Your task to perform on an android device: Open the phone app and click the voicemail tab. Image 0: 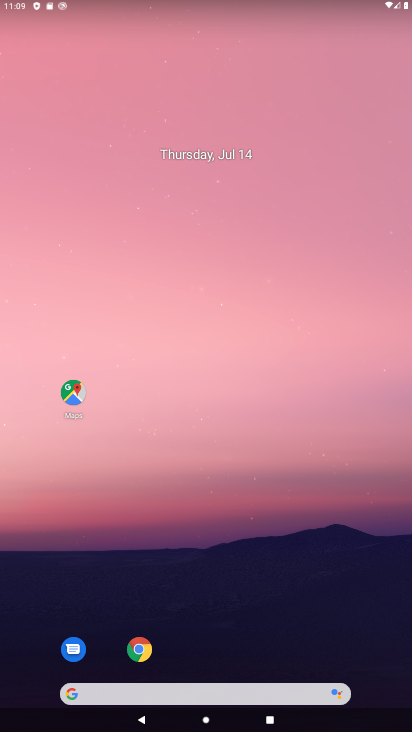
Step 0: drag from (161, 565) to (172, 56)
Your task to perform on an android device: Open the phone app and click the voicemail tab. Image 1: 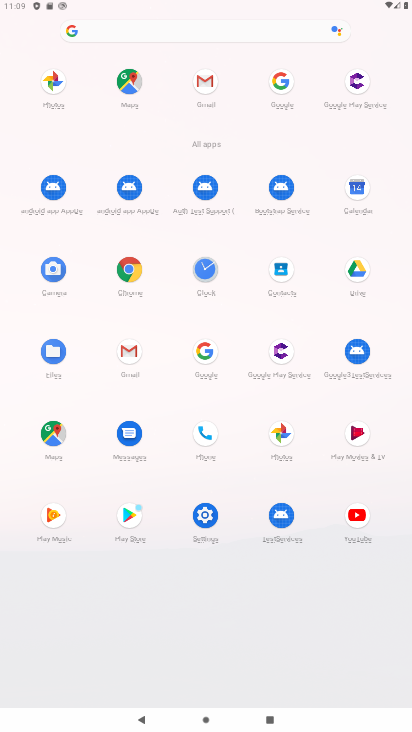
Step 1: click (204, 425)
Your task to perform on an android device: Open the phone app and click the voicemail tab. Image 2: 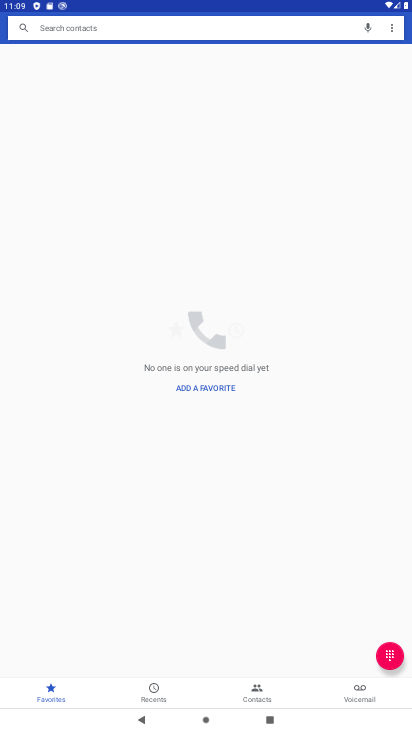
Step 2: click (366, 695)
Your task to perform on an android device: Open the phone app and click the voicemail tab. Image 3: 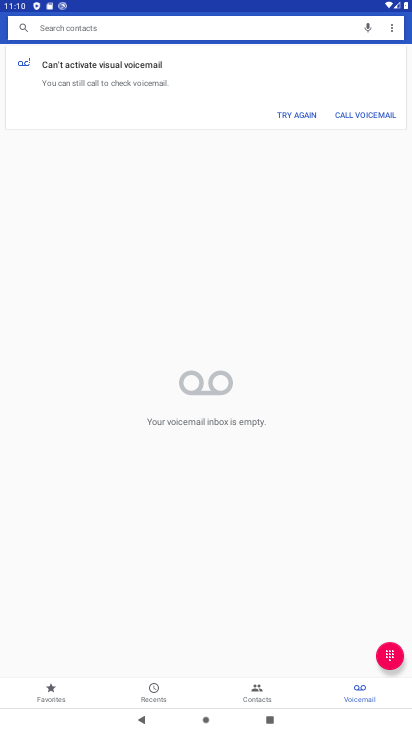
Step 3: click (366, 695)
Your task to perform on an android device: Open the phone app and click the voicemail tab. Image 4: 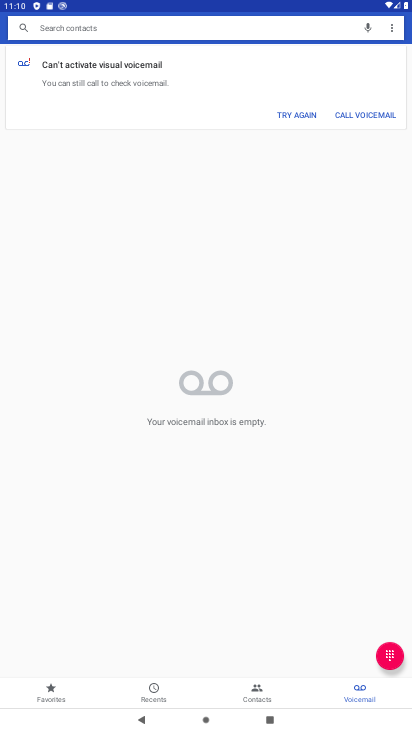
Step 4: task complete